Your task to perform on an android device: toggle priority inbox in the gmail app Image 0: 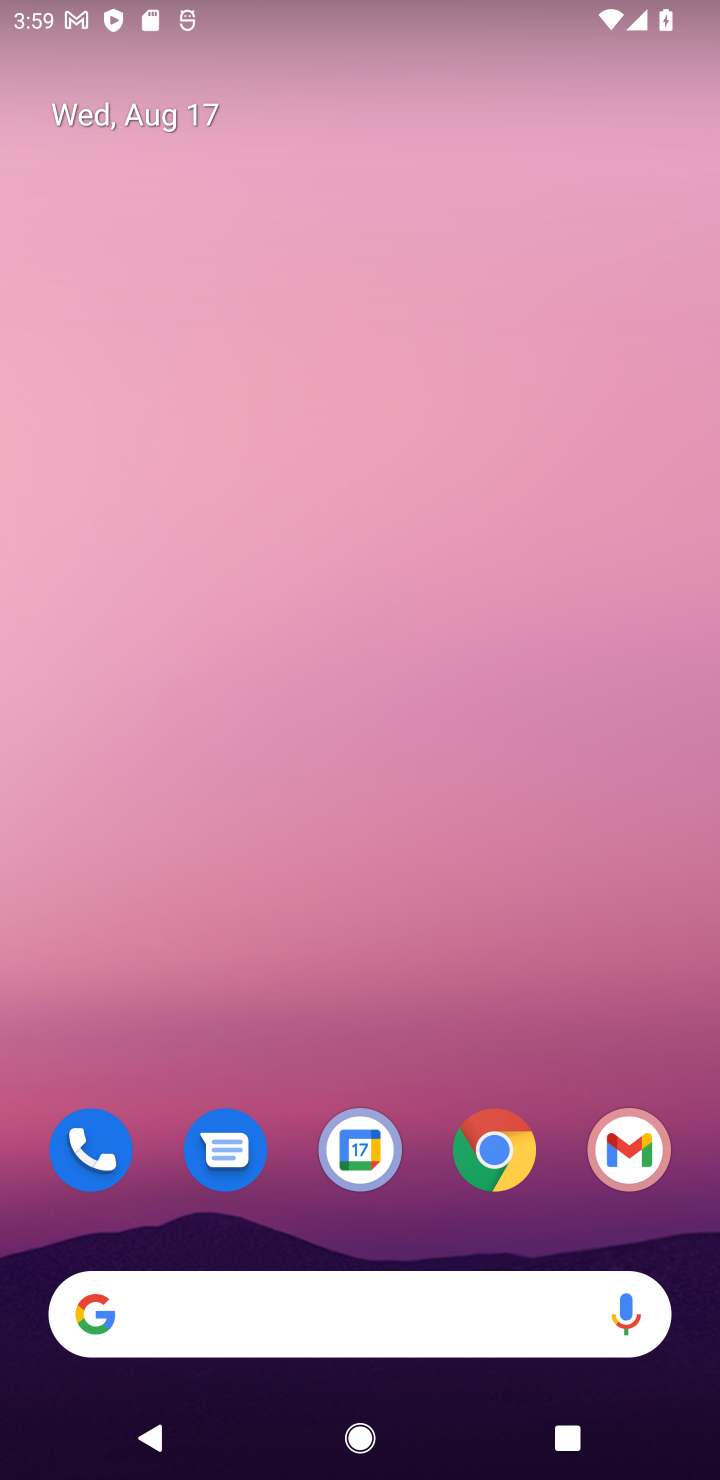
Step 0: drag from (593, 1200) to (448, 35)
Your task to perform on an android device: toggle priority inbox in the gmail app Image 1: 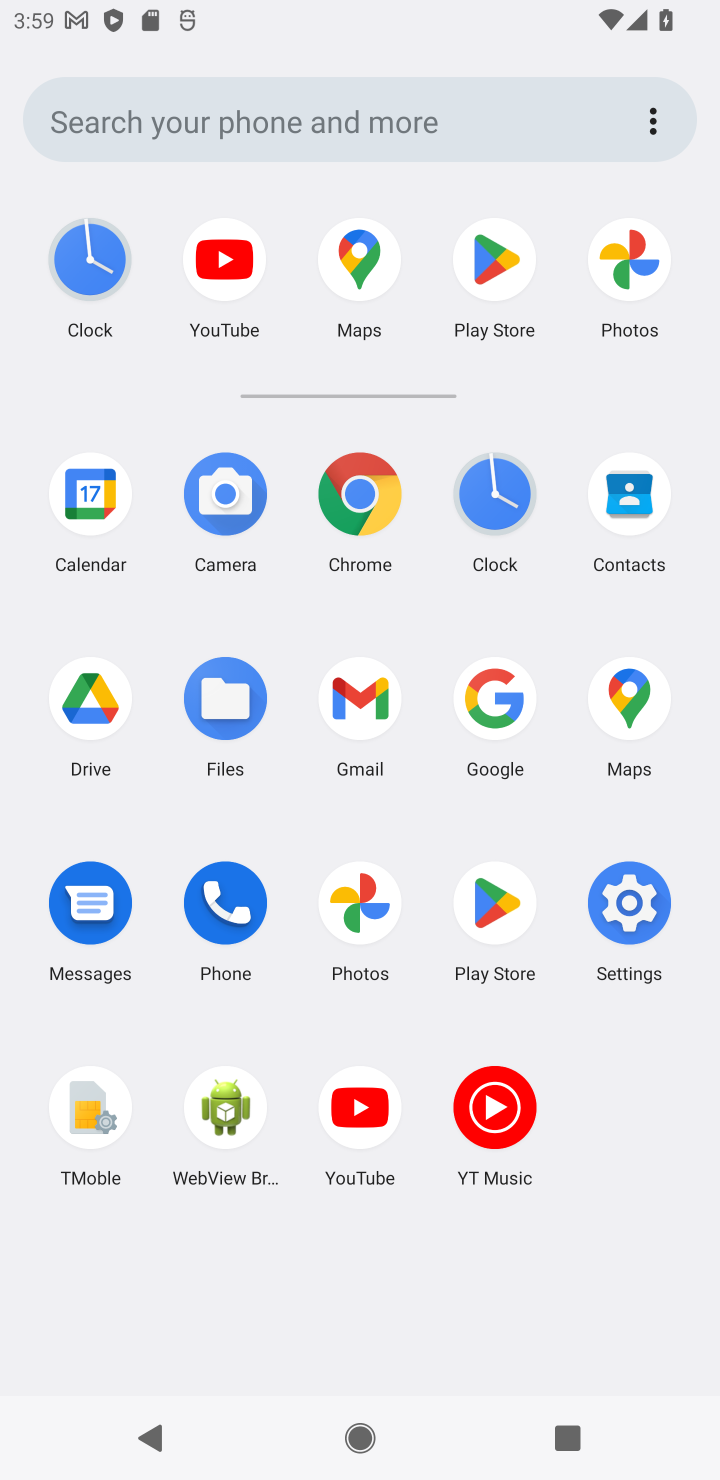
Step 1: click (335, 701)
Your task to perform on an android device: toggle priority inbox in the gmail app Image 2: 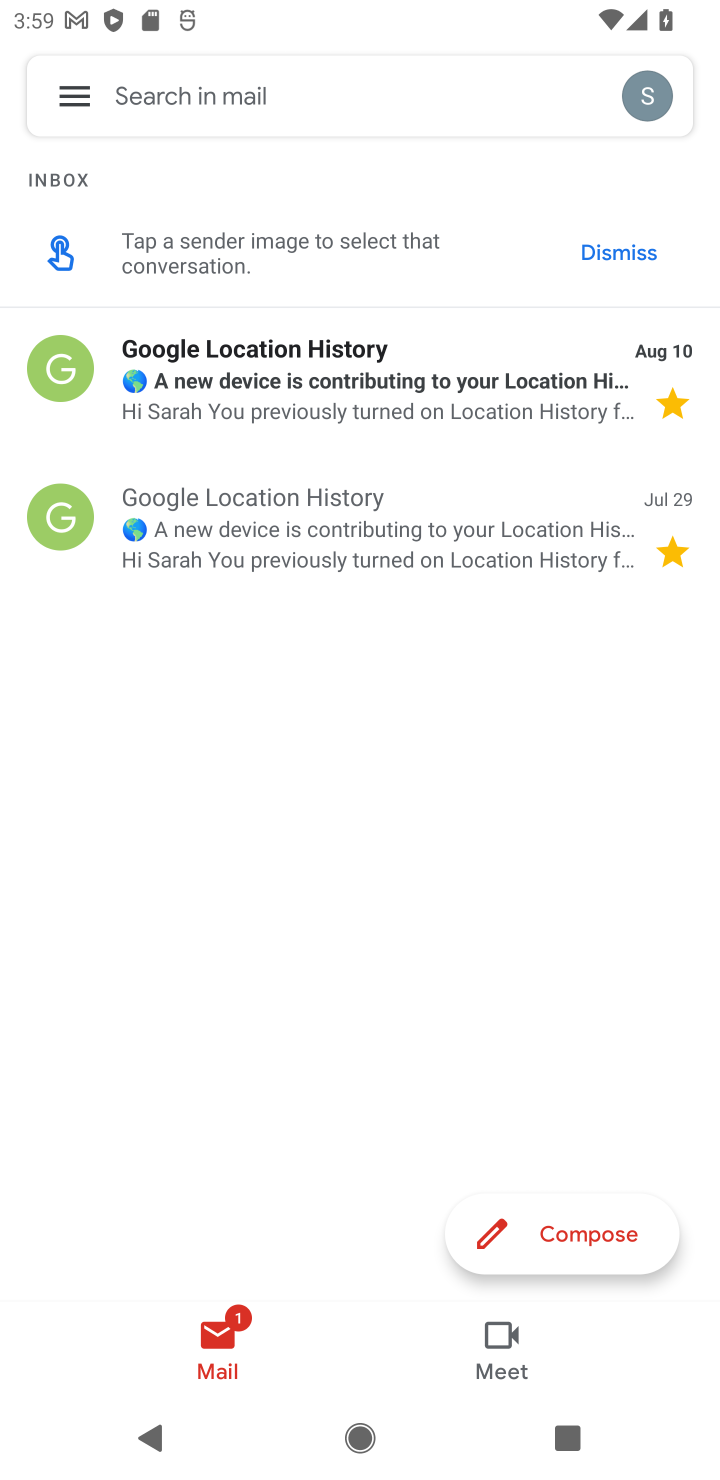
Step 2: click (66, 97)
Your task to perform on an android device: toggle priority inbox in the gmail app Image 3: 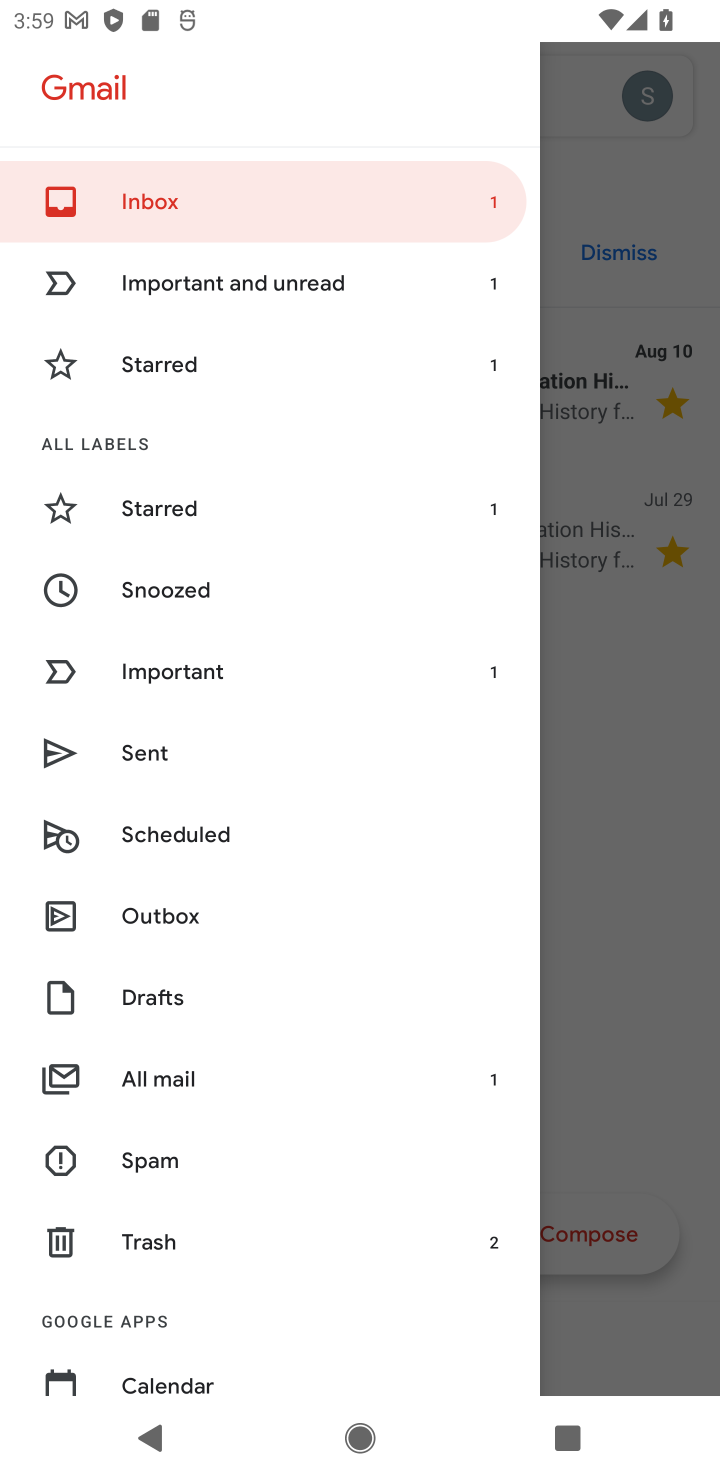
Step 3: drag from (184, 1318) to (323, 123)
Your task to perform on an android device: toggle priority inbox in the gmail app Image 4: 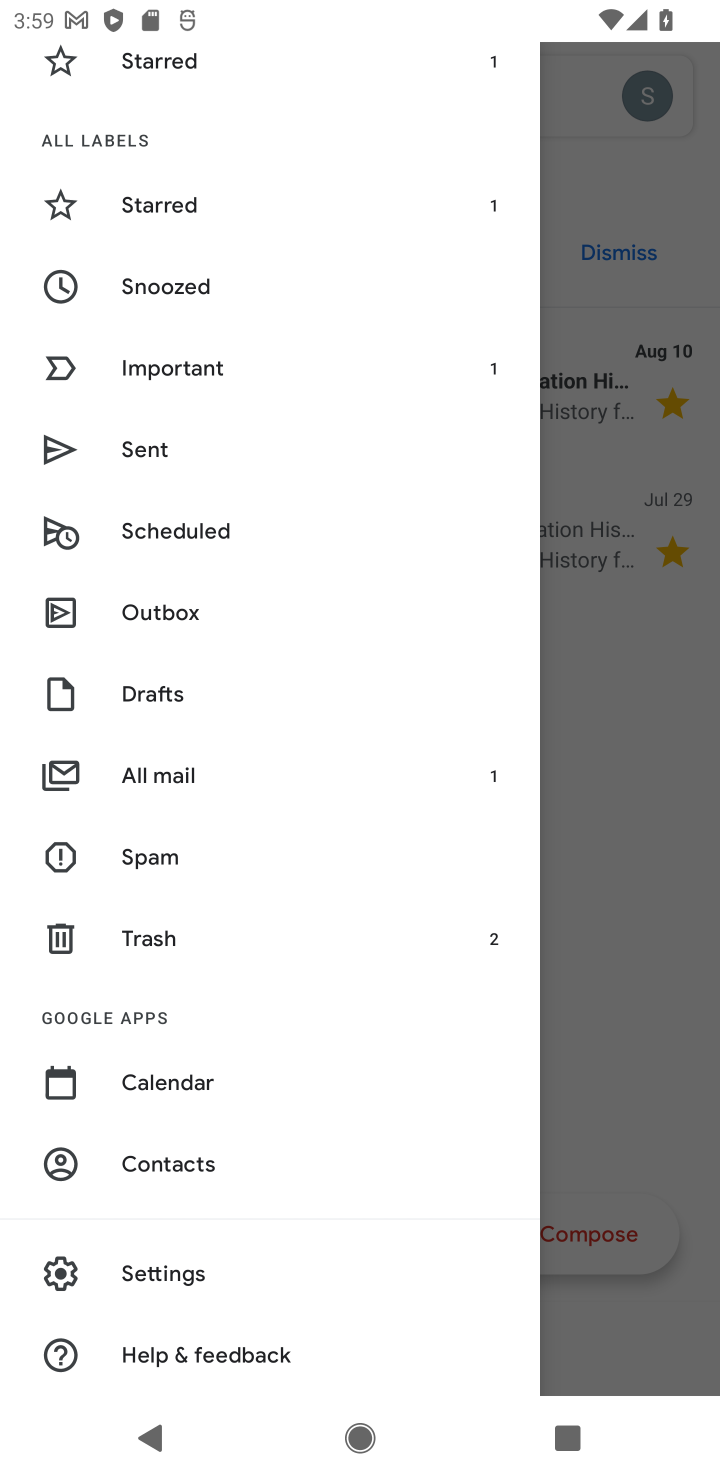
Step 4: click (160, 1269)
Your task to perform on an android device: toggle priority inbox in the gmail app Image 5: 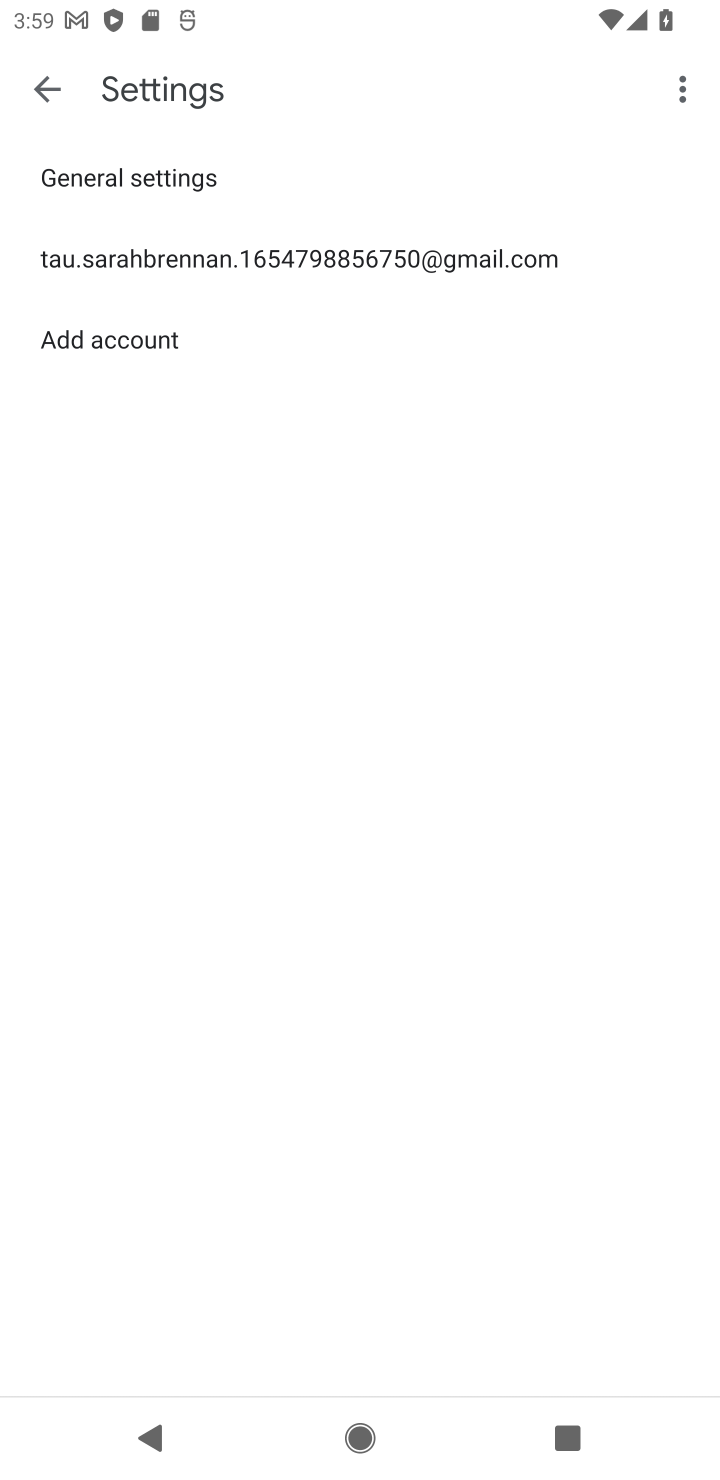
Step 5: click (264, 264)
Your task to perform on an android device: toggle priority inbox in the gmail app Image 6: 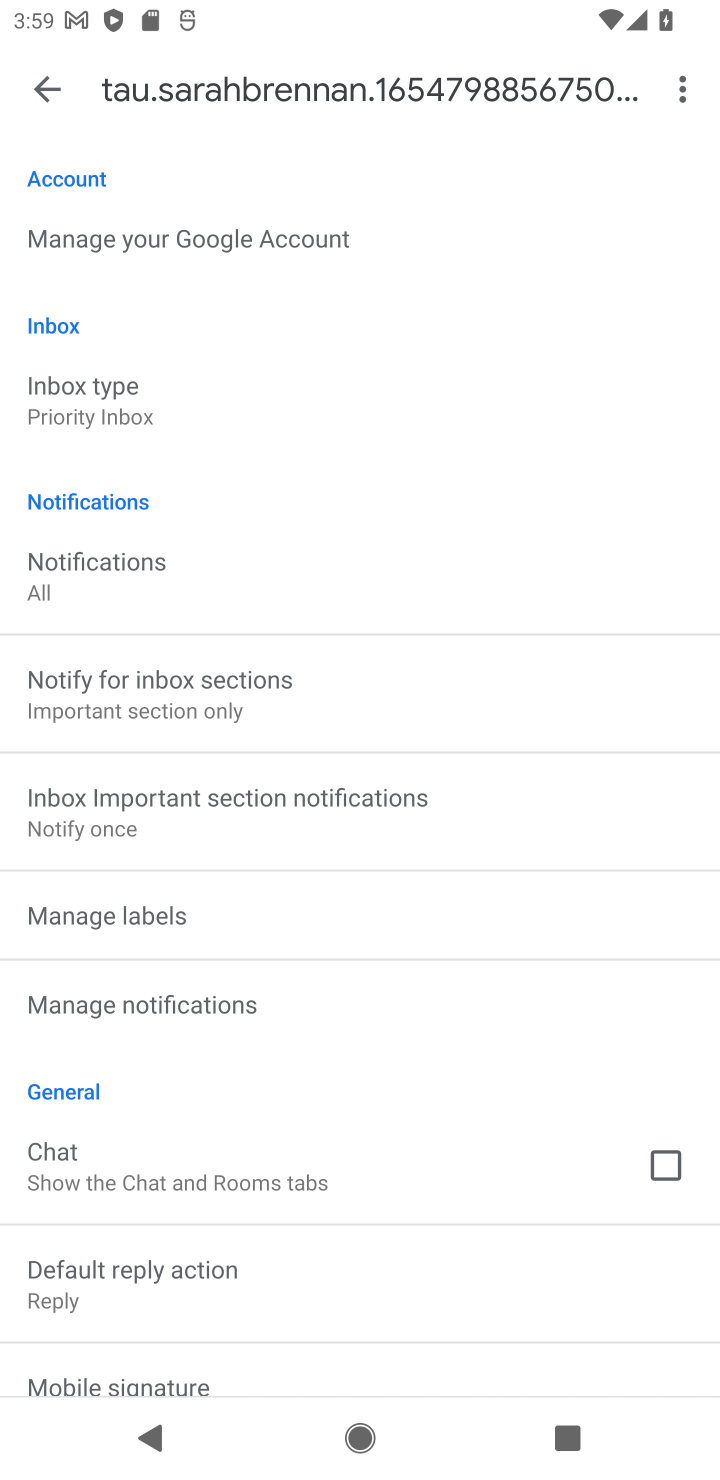
Step 6: click (131, 420)
Your task to perform on an android device: toggle priority inbox in the gmail app Image 7: 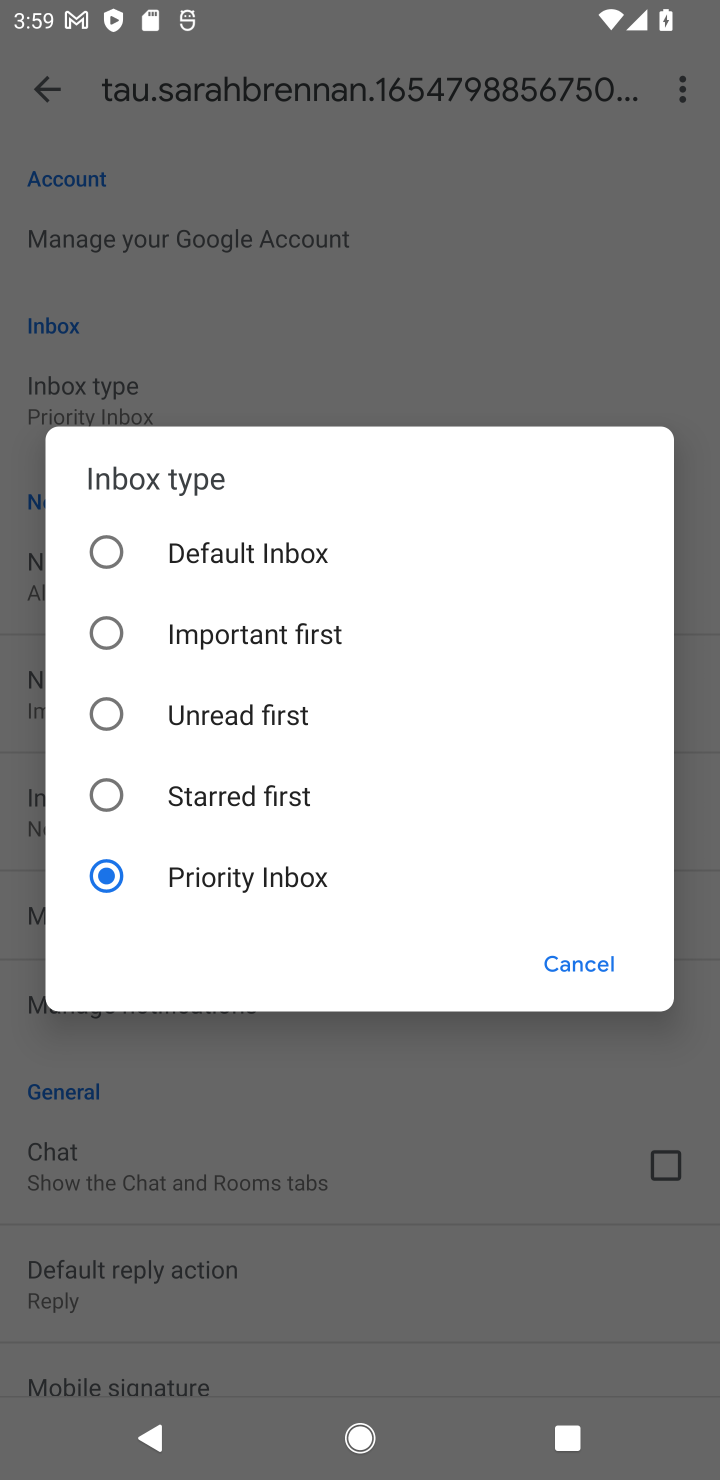
Step 7: click (293, 563)
Your task to perform on an android device: toggle priority inbox in the gmail app Image 8: 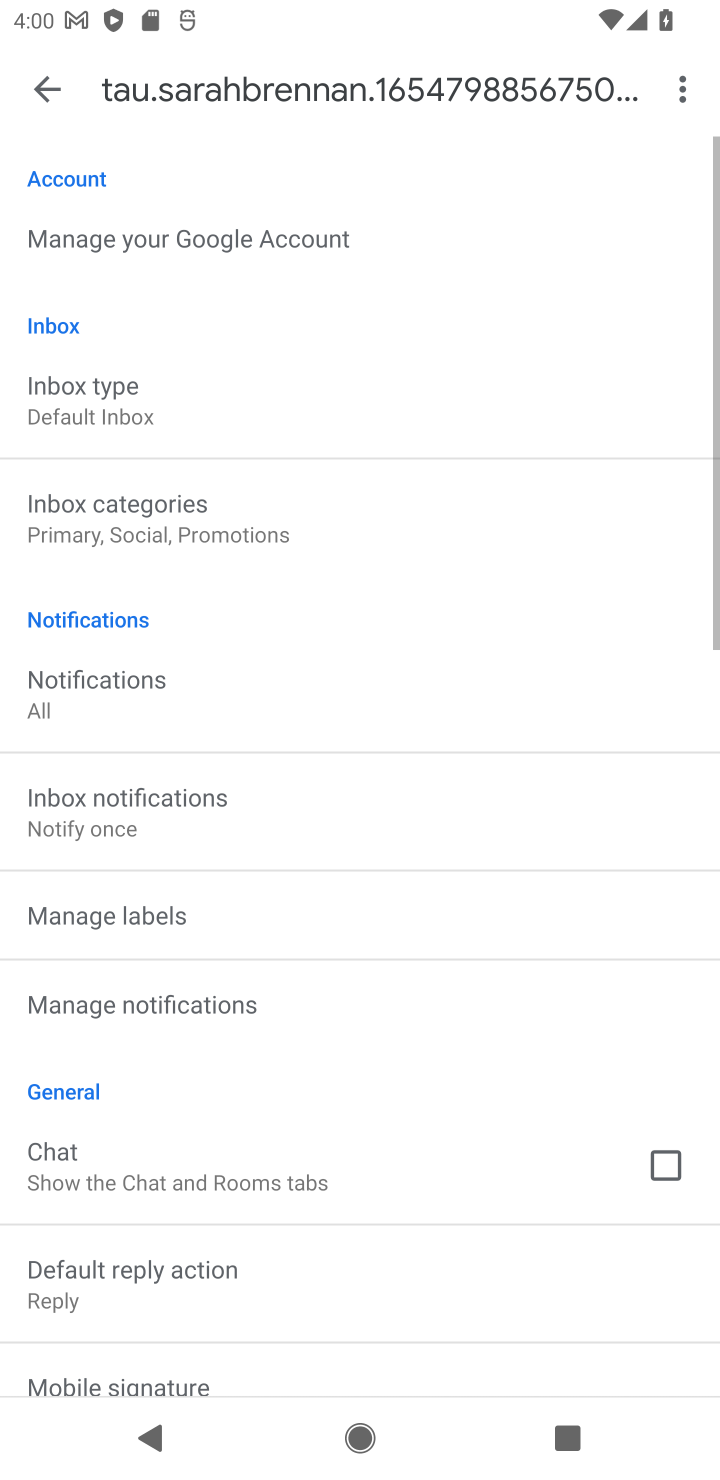
Step 8: task complete